Your task to perform on an android device: Show me the alarms in the clock app Image 0: 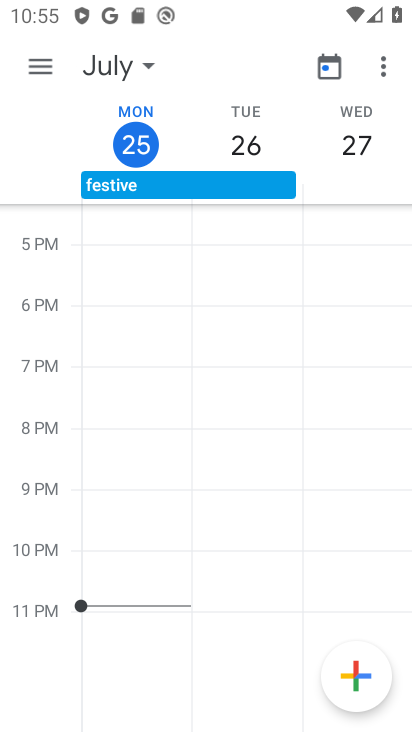
Step 0: press home button
Your task to perform on an android device: Show me the alarms in the clock app Image 1: 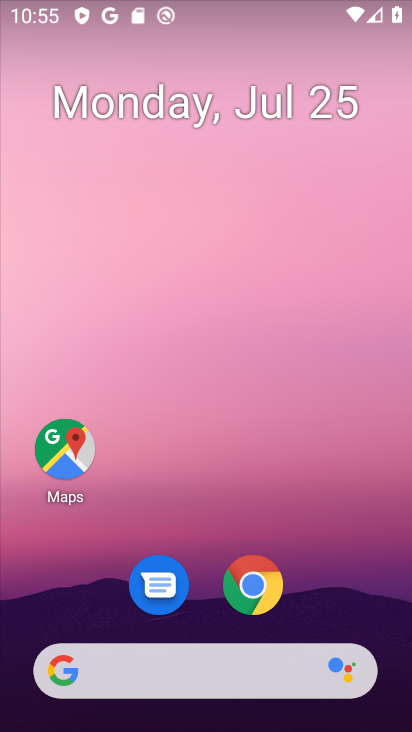
Step 1: drag from (315, 601) to (291, 89)
Your task to perform on an android device: Show me the alarms in the clock app Image 2: 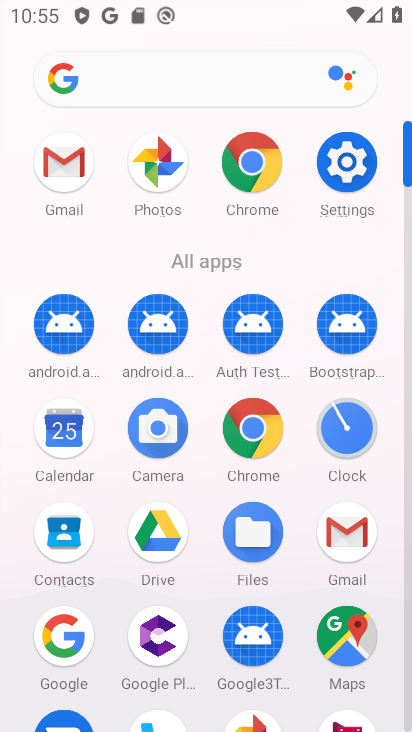
Step 2: click (342, 427)
Your task to perform on an android device: Show me the alarms in the clock app Image 3: 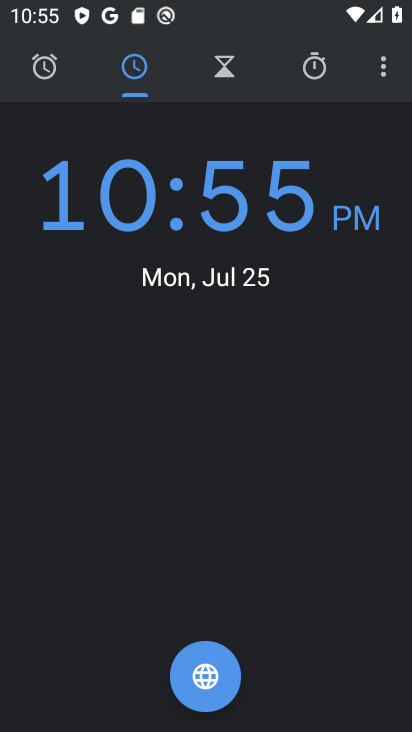
Step 3: click (43, 65)
Your task to perform on an android device: Show me the alarms in the clock app Image 4: 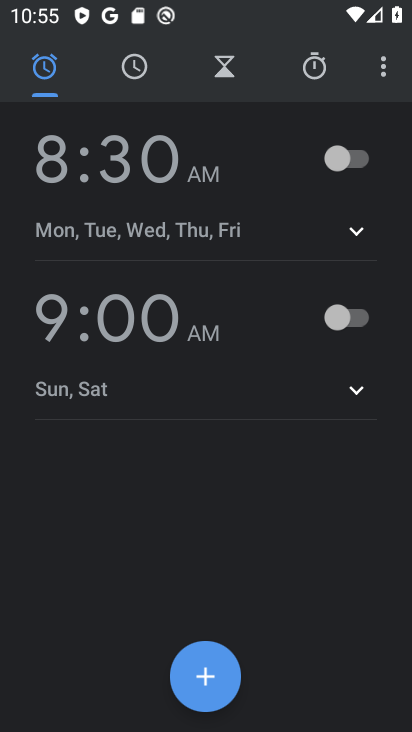
Step 4: task complete